Your task to perform on an android device: Go to eBay Image 0: 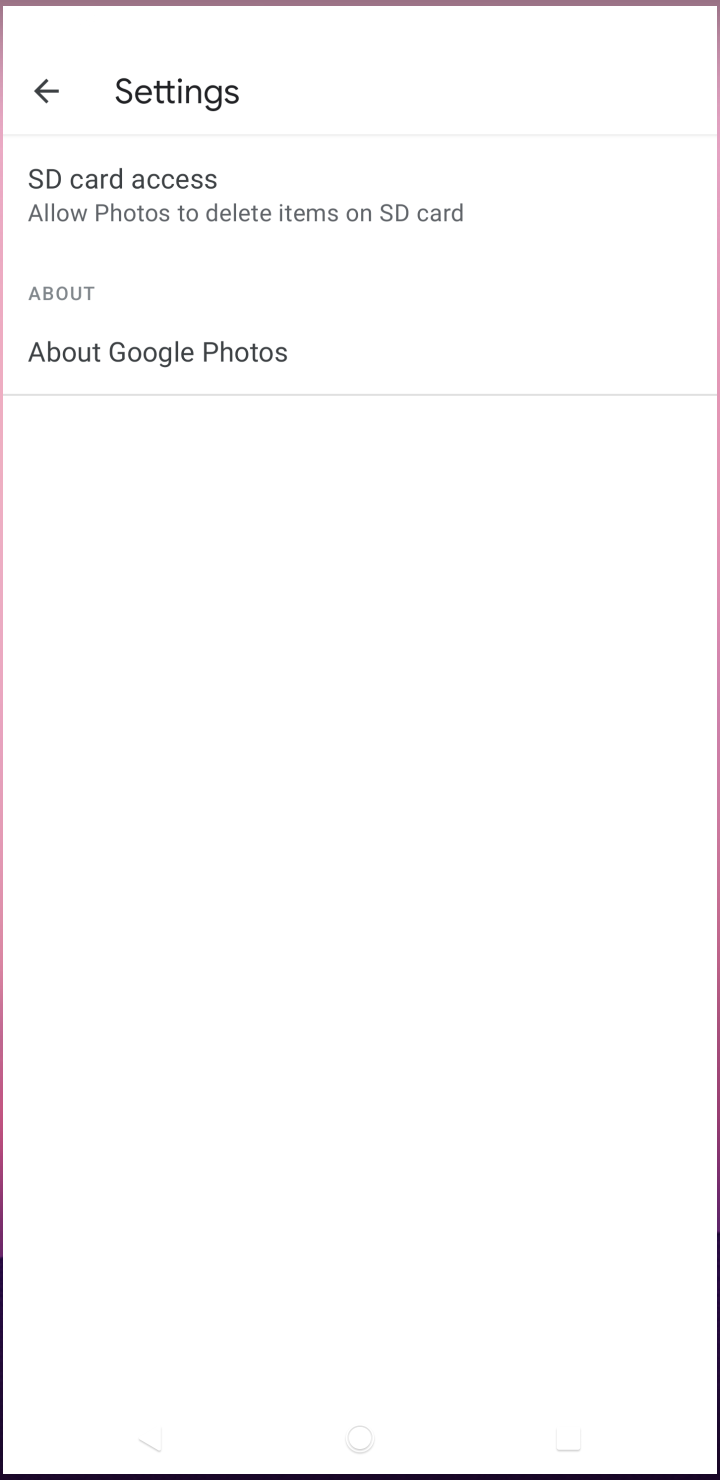
Step 0: press home button
Your task to perform on an android device: Go to eBay Image 1: 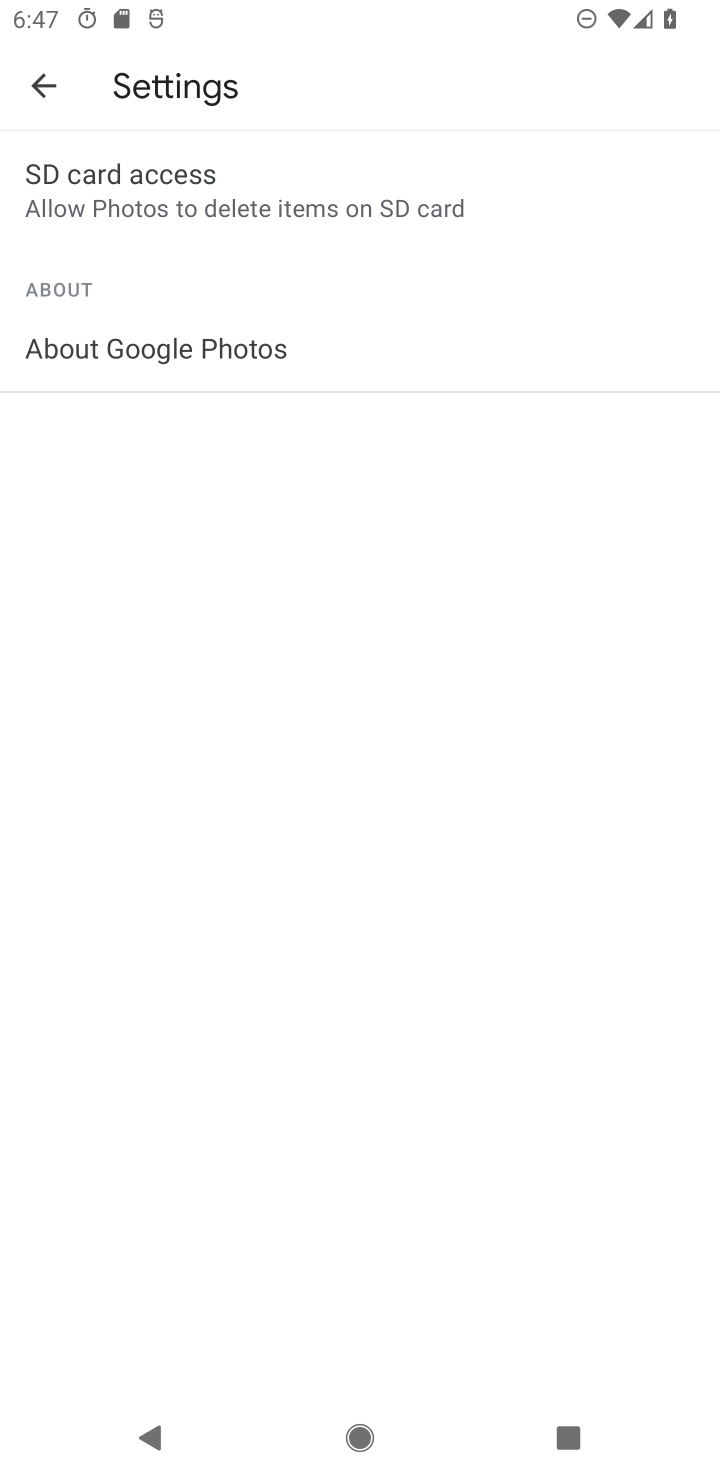
Step 1: drag from (299, 1123) to (473, 345)
Your task to perform on an android device: Go to eBay Image 2: 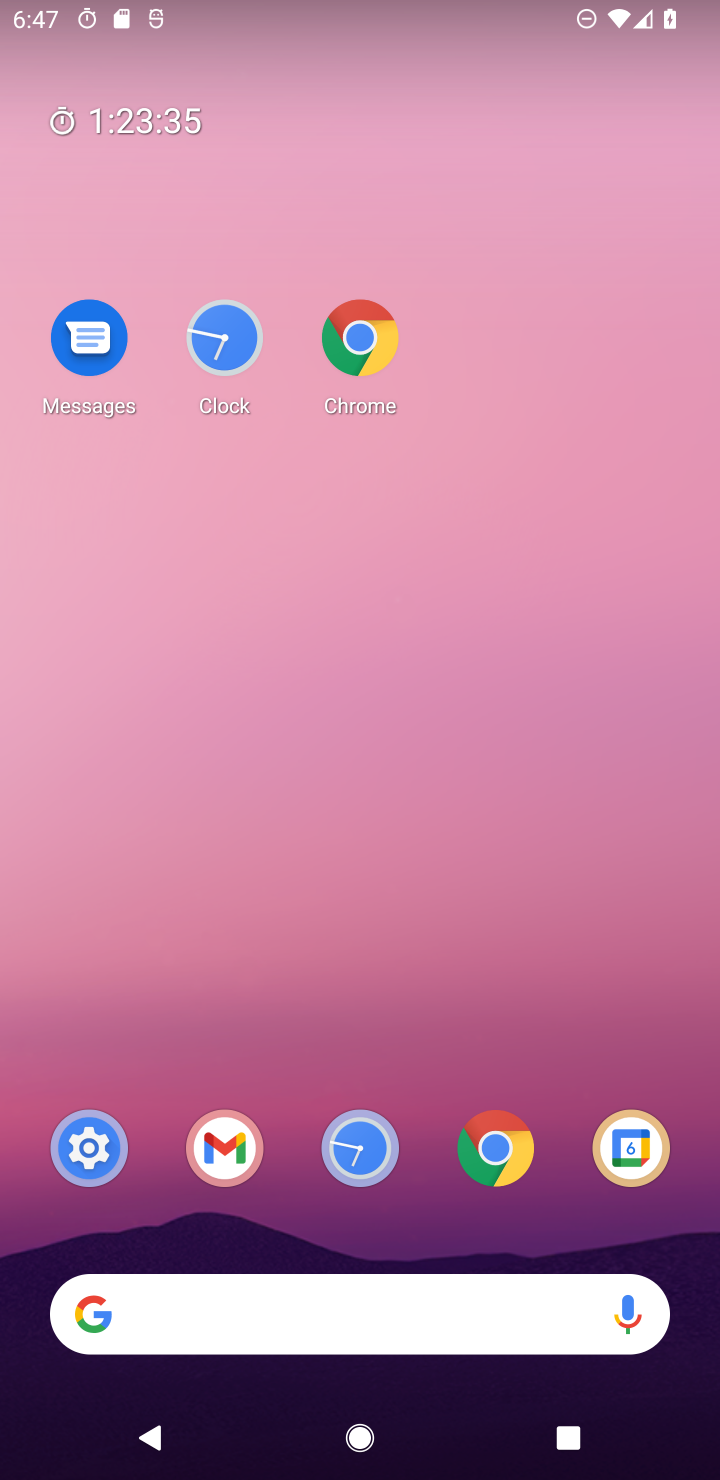
Step 2: press home button
Your task to perform on an android device: Go to eBay Image 3: 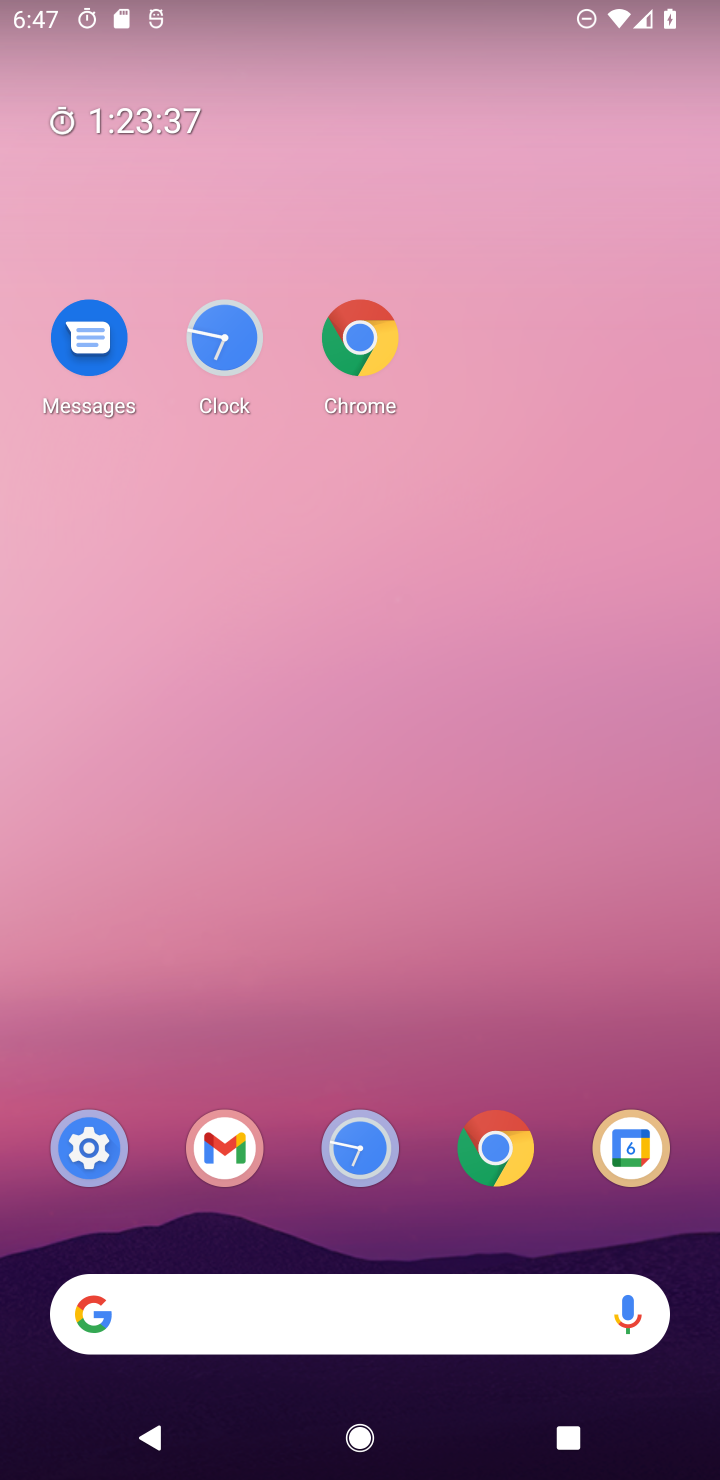
Step 3: drag from (435, 990) to (520, 350)
Your task to perform on an android device: Go to eBay Image 4: 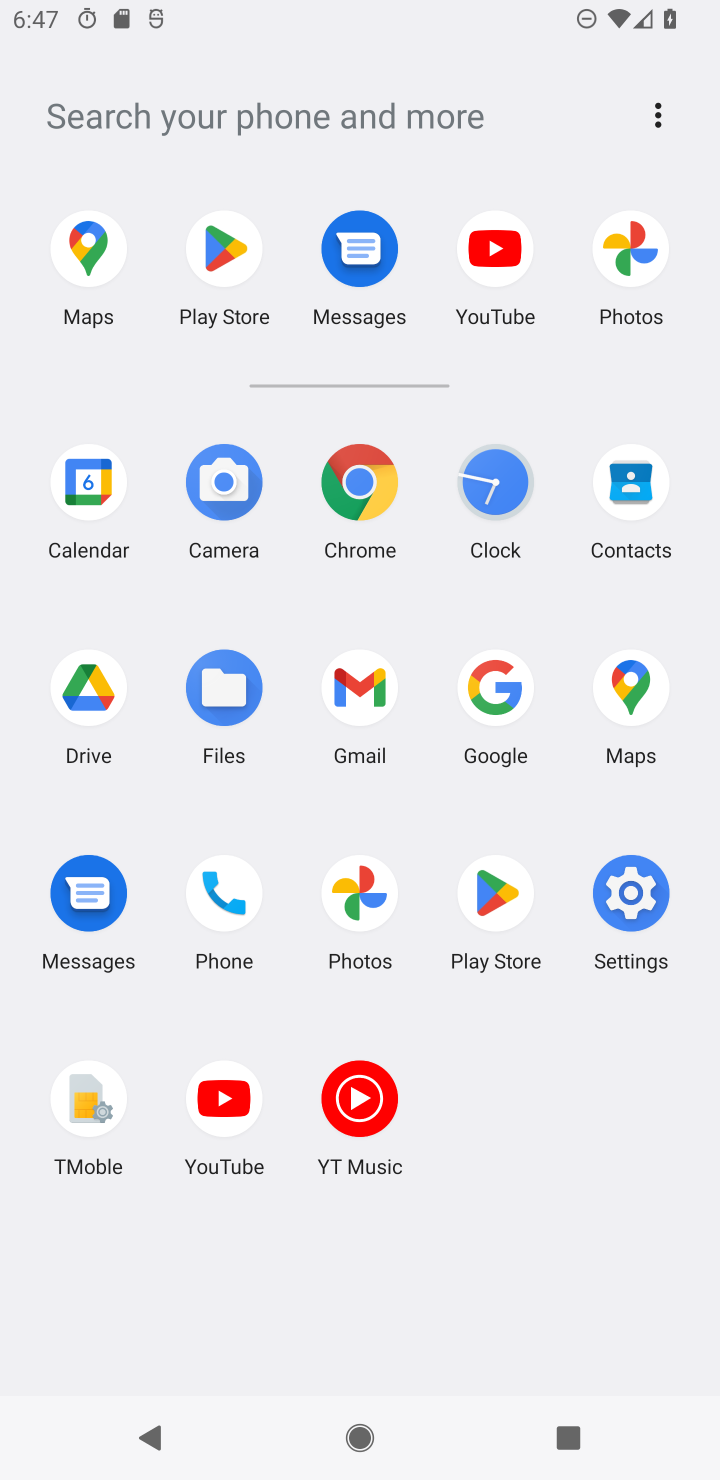
Step 4: click (361, 495)
Your task to perform on an android device: Go to eBay Image 5: 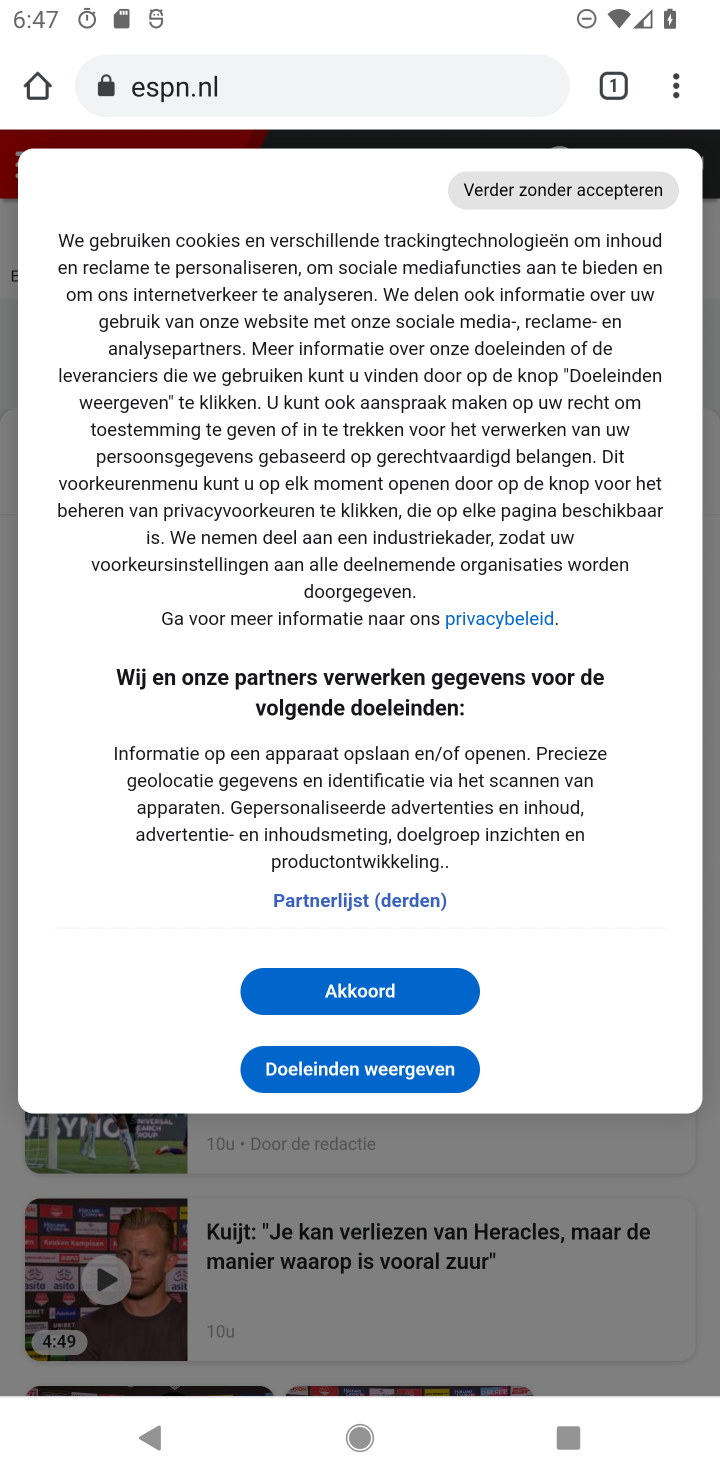
Step 5: click (231, 94)
Your task to perform on an android device: Go to eBay Image 6: 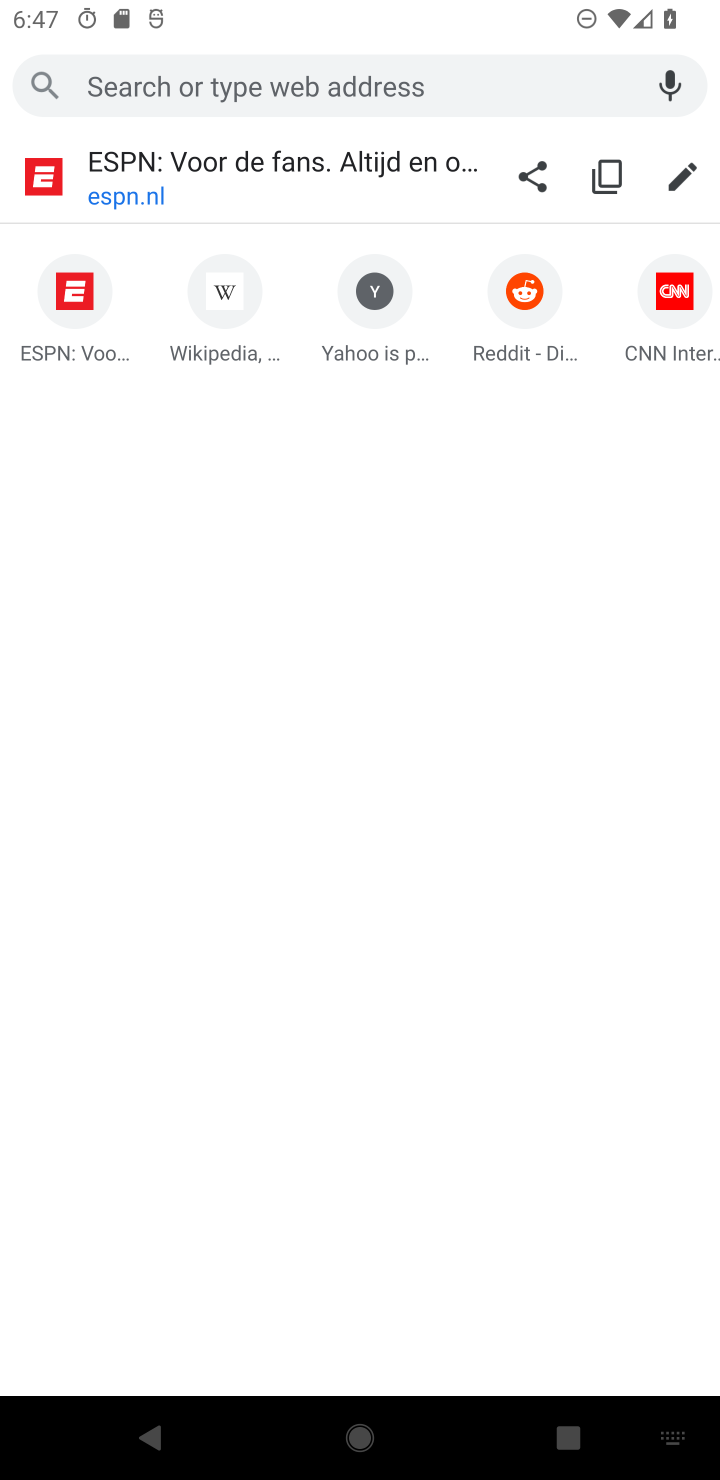
Step 6: type "eBay"
Your task to perform on an android device: Go to eBay Image 7: 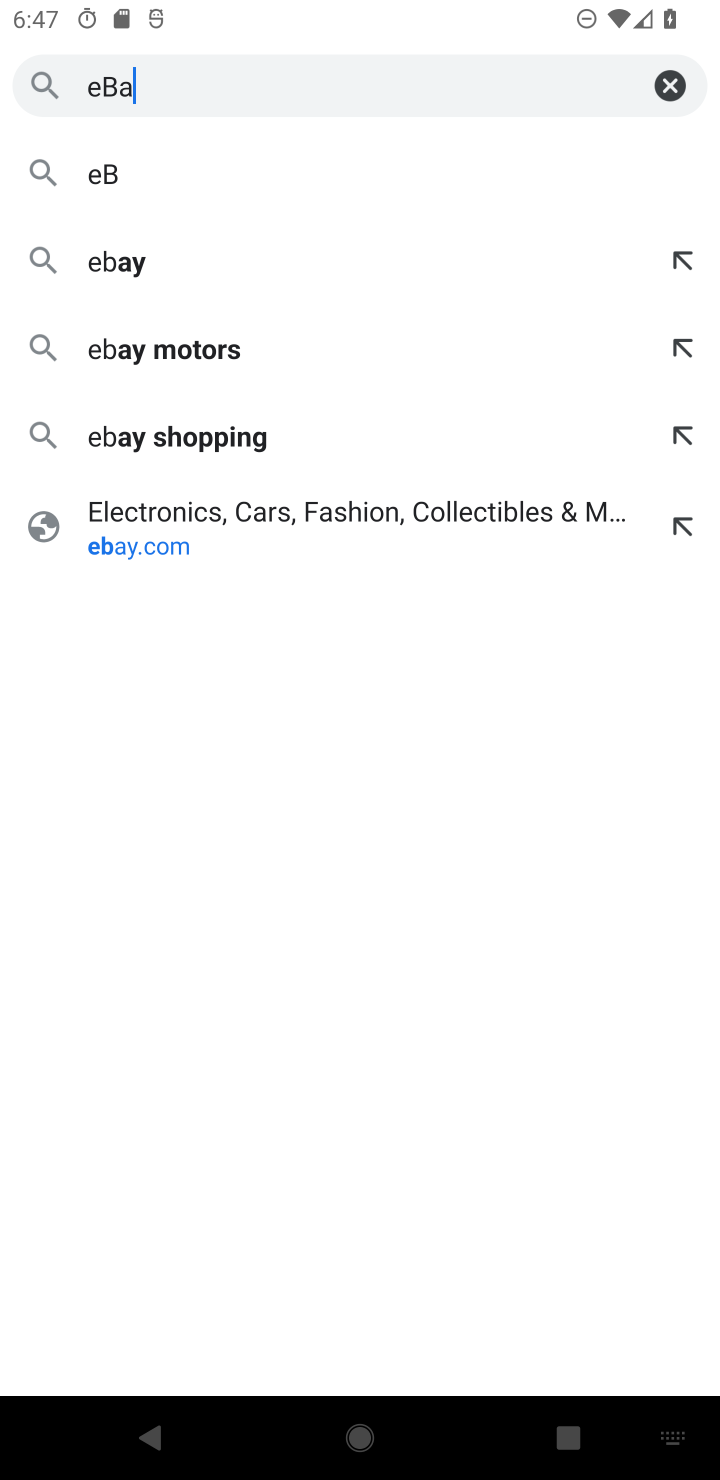
Step 7: type ""
Your task to perform on an android device: Go to eBay Image 8: 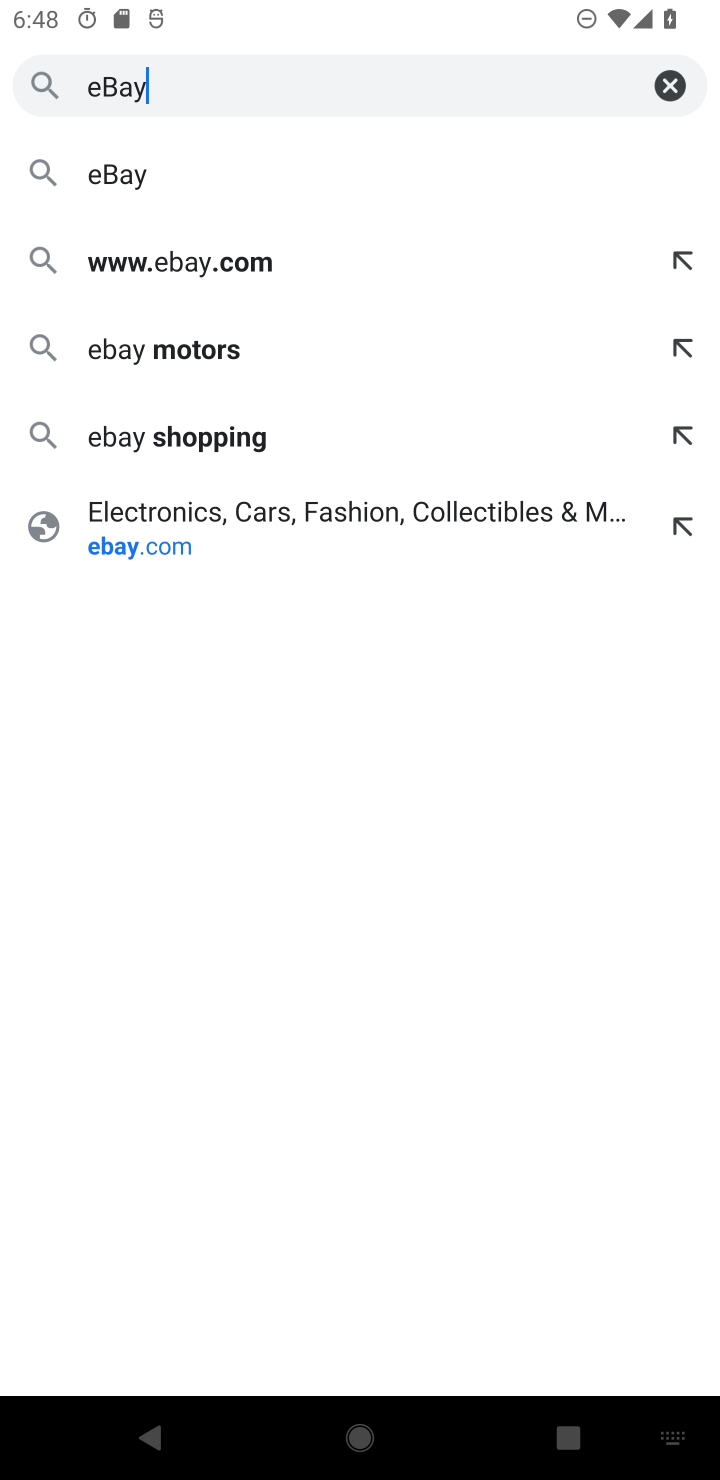
Step 8: click (234, 190)
Your task to perform on an android device: Go to eBay Image 9: 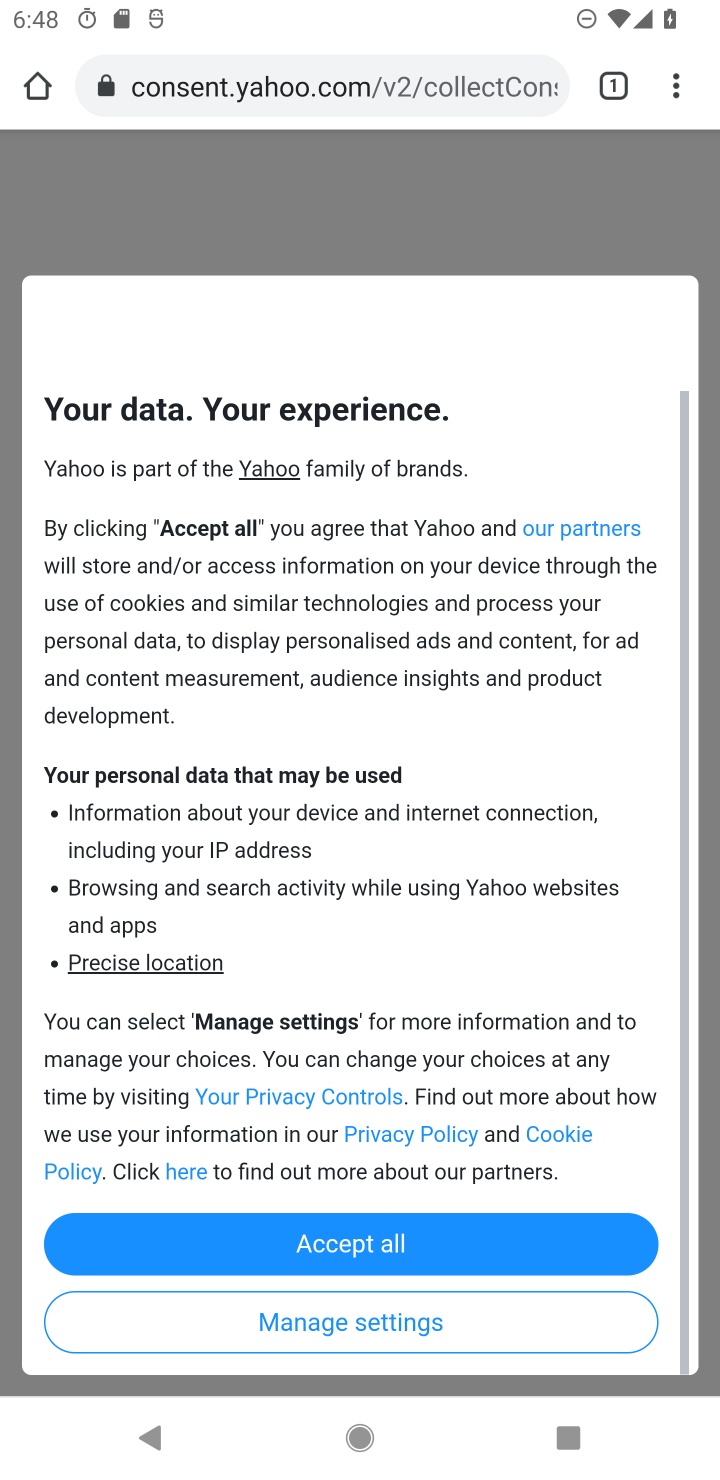
Step 9: task complete